Your task to perform on an android device: toggle notifications settings in the gmail app Image 0: 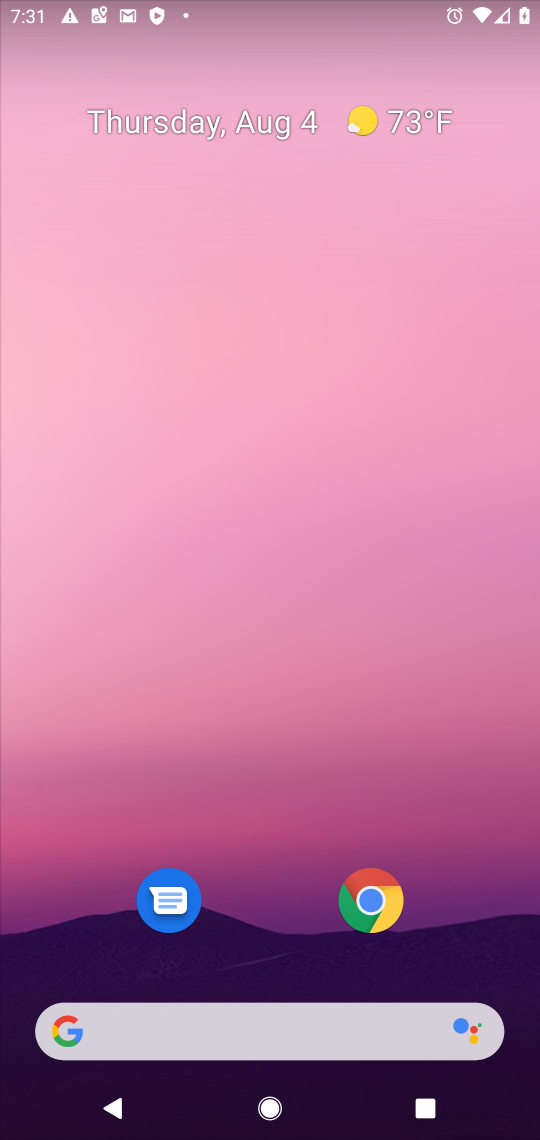
Step 0: drag from (209, 1023) to (354, 105)
Your task to perform on an android device: toggle notifications settings in the gmail app Image 1: 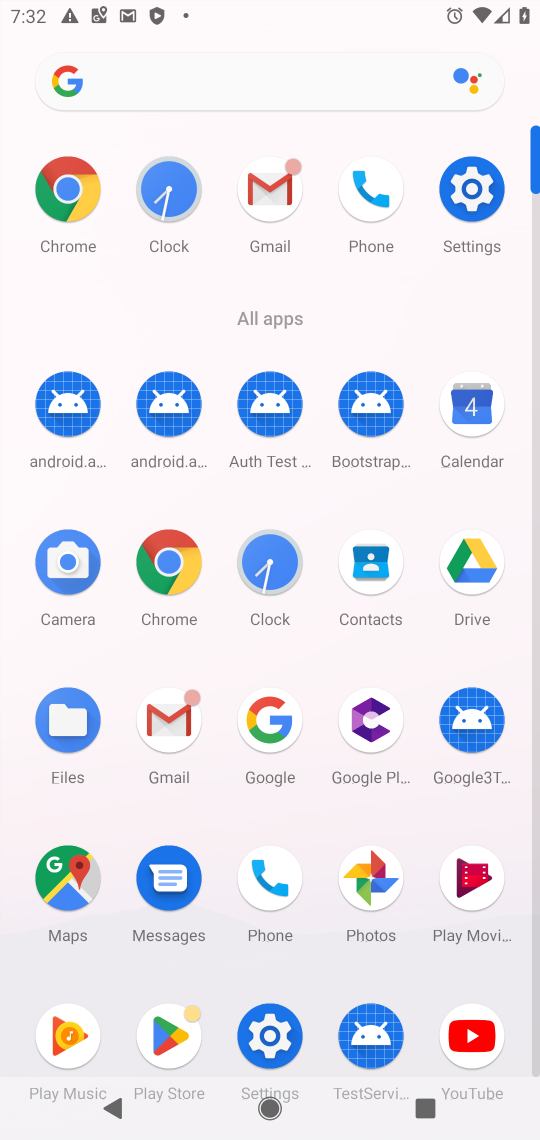
Step 1: click (268, 189)
Your task to perform on an android device: toggle notifications settings in the gmail app Image 2: 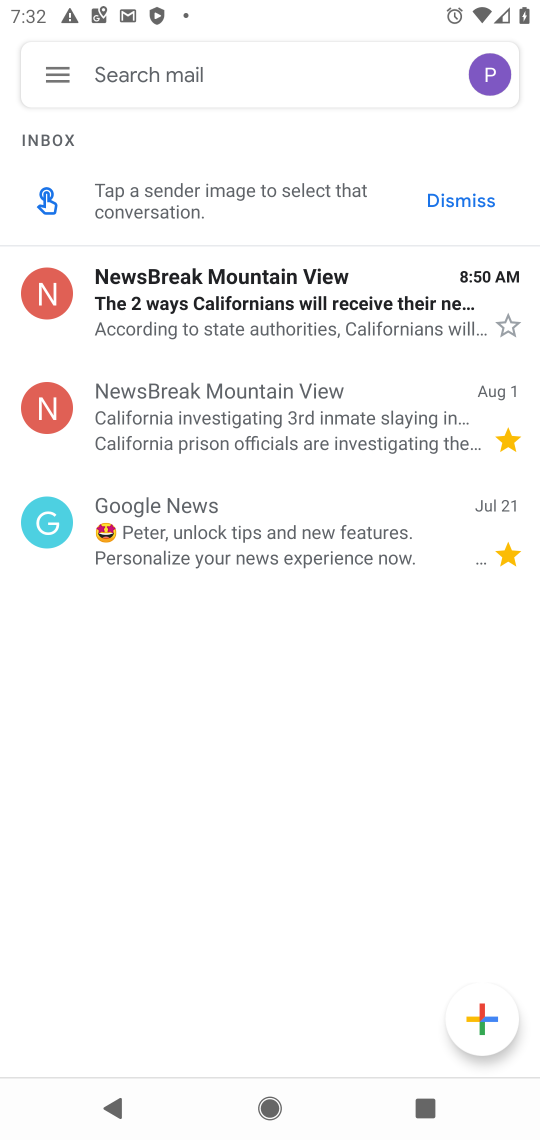
Step 2: click (62, 70)
Your task to perform on an android device: toggle notifications settings in the gmail app Image 3: 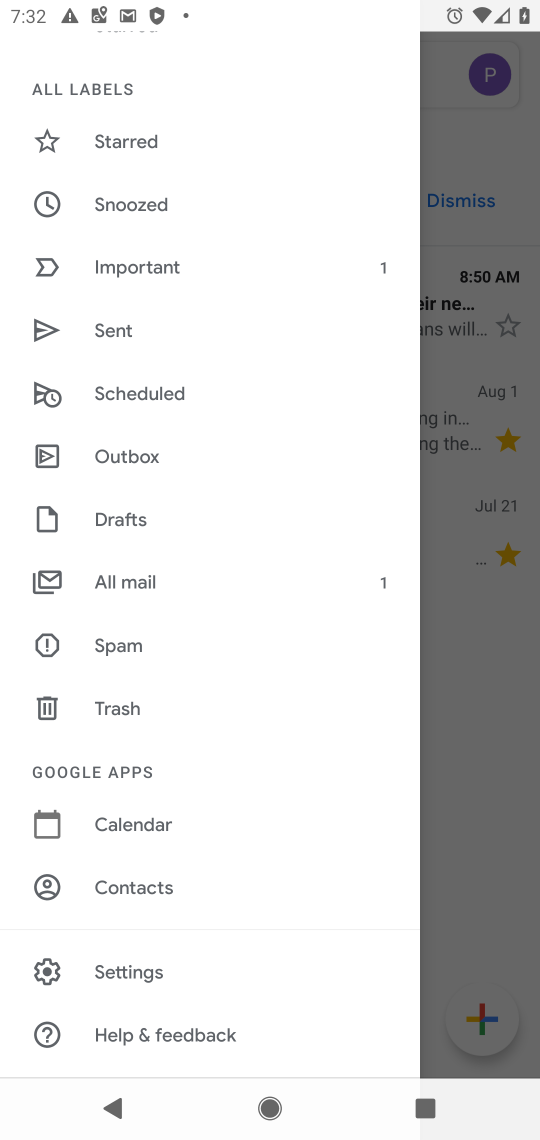
Step 3: click (150, 969)
Your task to perform on an android device: toggle notifications settings in the gmail app Image 4: 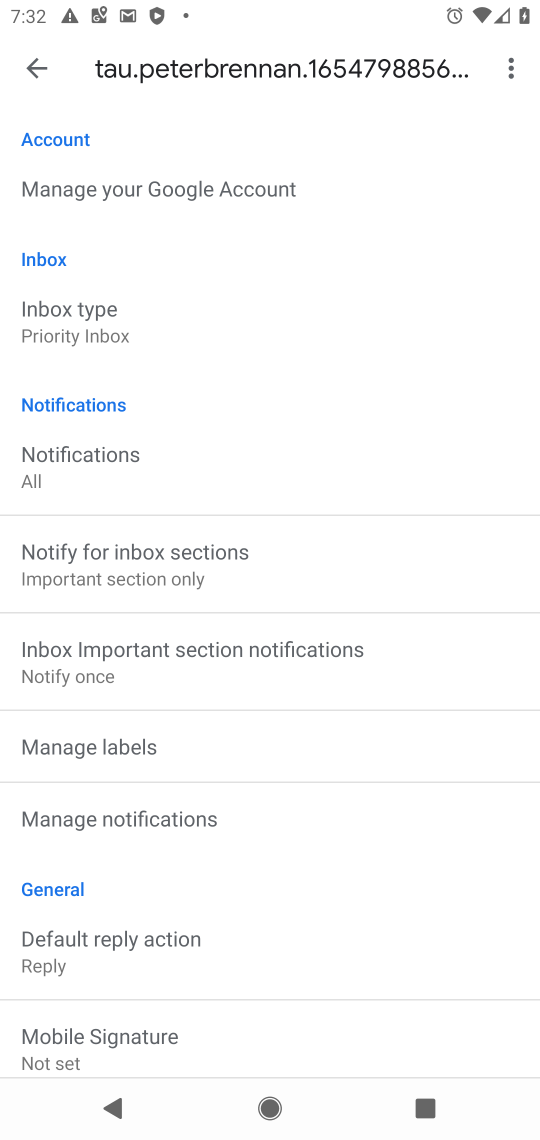
Step 4: click (153, 827)
Your task to perform on an android device: toggle notifications settings in the gmail app Image 5: 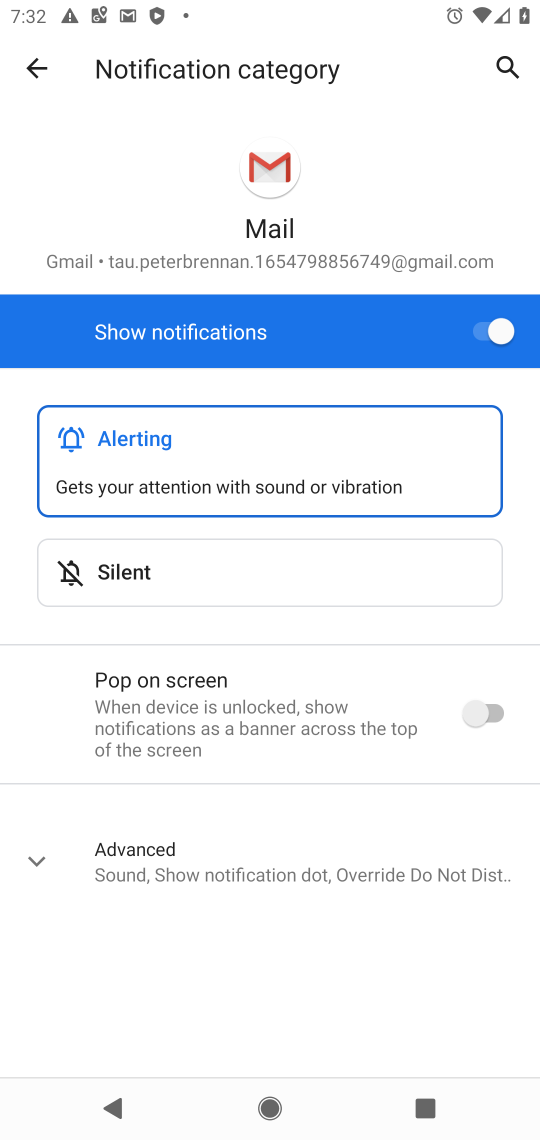
Step 5: click (485, 333)
Your task to perform on an android device: toggle notifications settings in the gmail app Image 6: 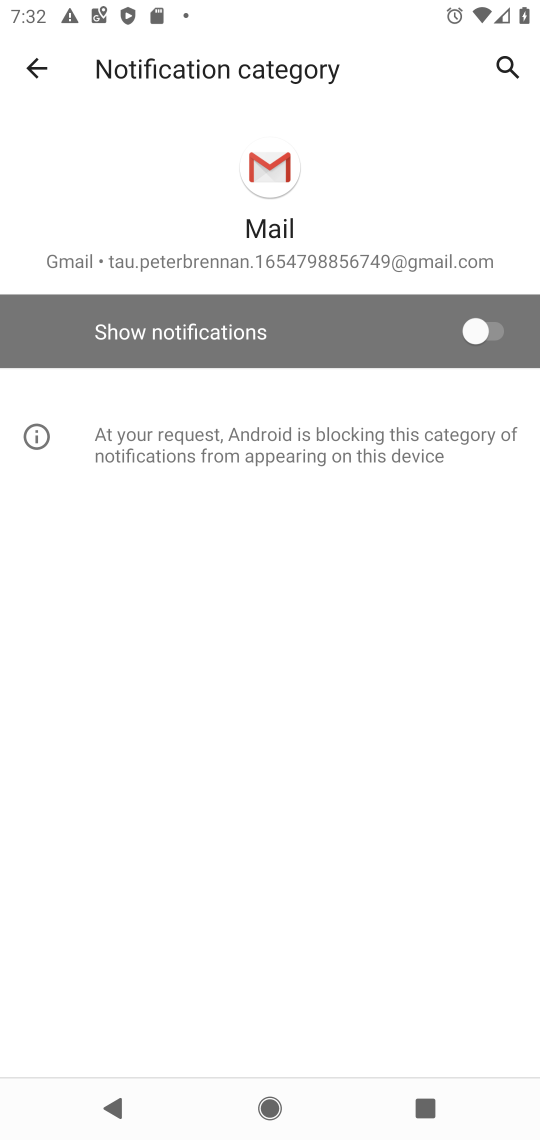
Step 6: task complete